Your task to perform on an android device: move a message to another label in the gmail app Image 0: 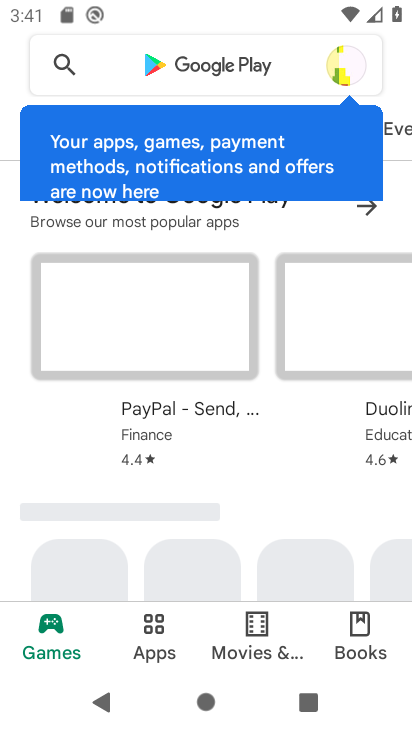
Step 0: press home button
Your task to perform on an android device: move a message to another label in the gmail app Image 1: 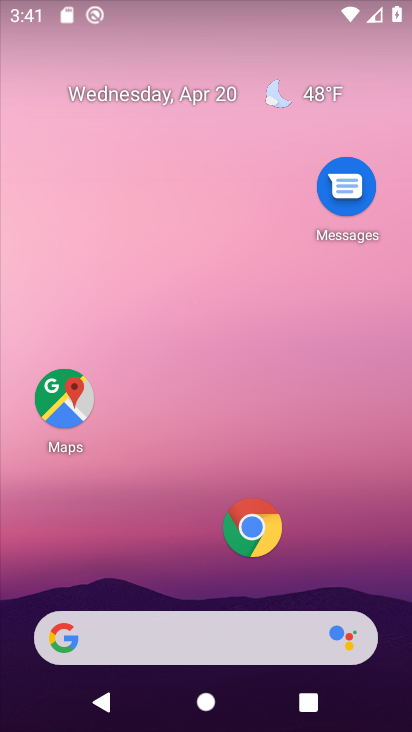
Step 1: drag from (128, 635) to (244, 59)
Your task to perform on an android device: move a message to another label in the gmail app Image 2: 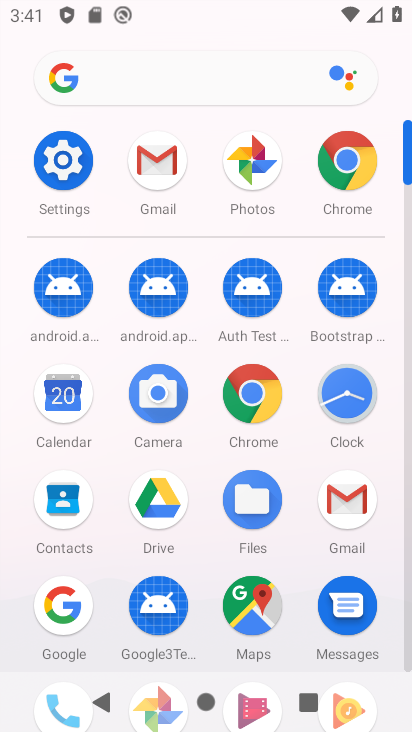
Step 2: click (162, 172)
Your task to perform on an android device: move a message to another label in the gmail app Image 3: 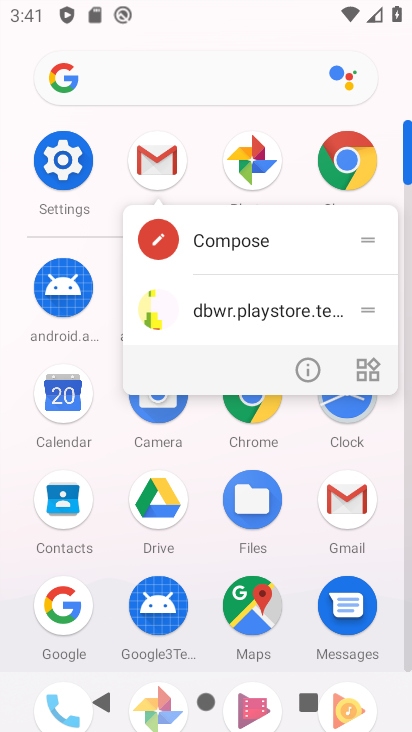
Step 3: click (160, 175)
Your task to perform on an android device: move a message to another label in the gmail app Image 4: 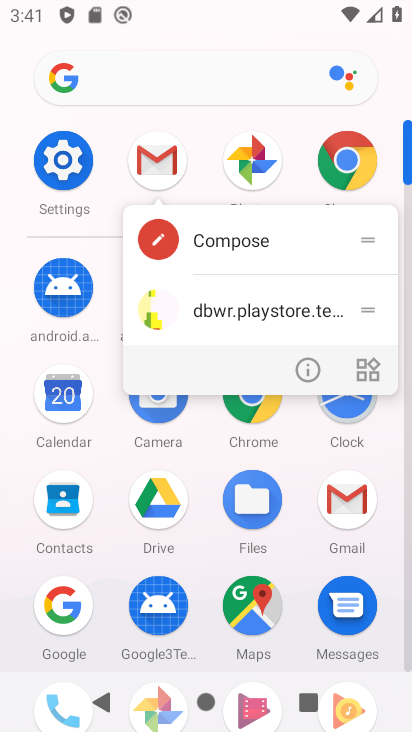
Step 4: click (152, 162)
Your task to perform on an android device: move a message to another label in the gmail app Image 5: 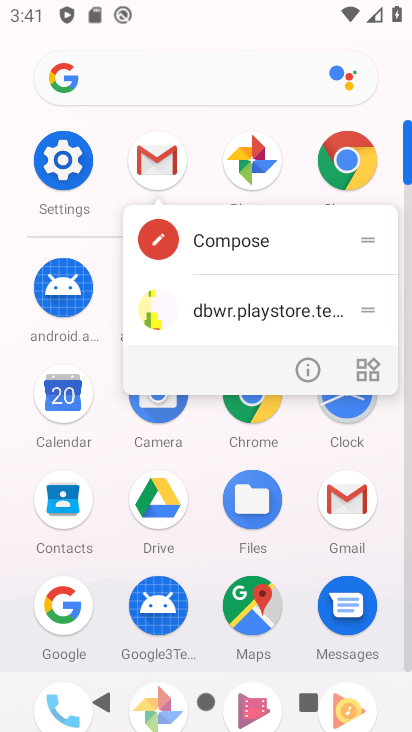
Step 5: click (144, 171)
Your task to perform on an android device: move a message to another label in the gmail app Image 6: 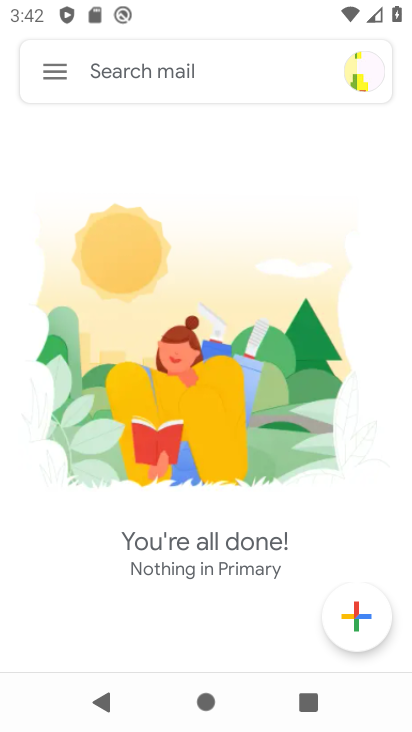
Step 6: task complete